Your task to perform on an android device: open chrome privacy settings Image 0: 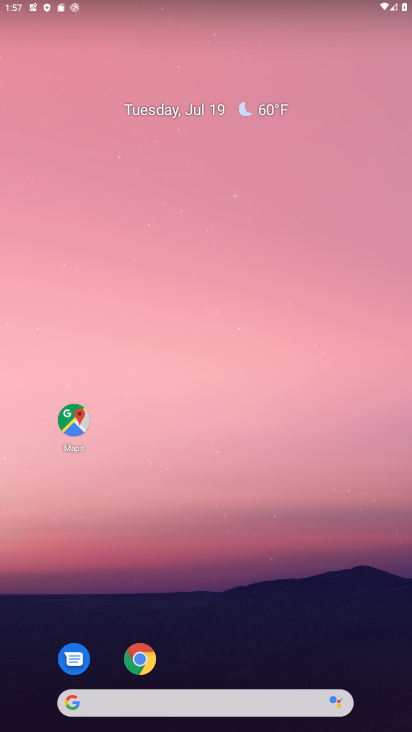
Step 0: press home button
Your task to perform on an android device: open chrome privacy settings Image 1: 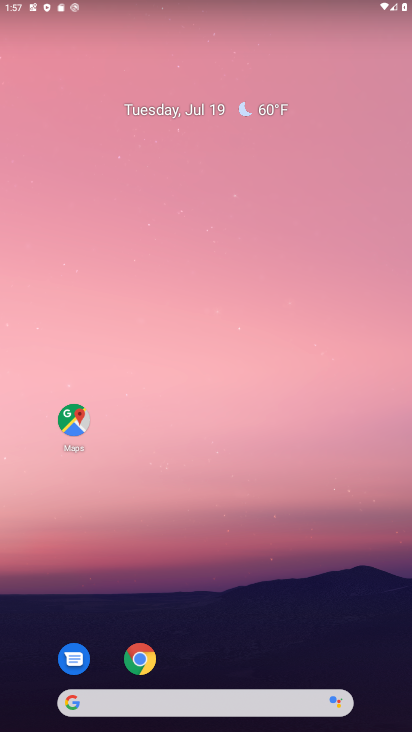
Step 1: click (139, 649)
Your task to perform on an android device: open chrome privacy settings Image 2: 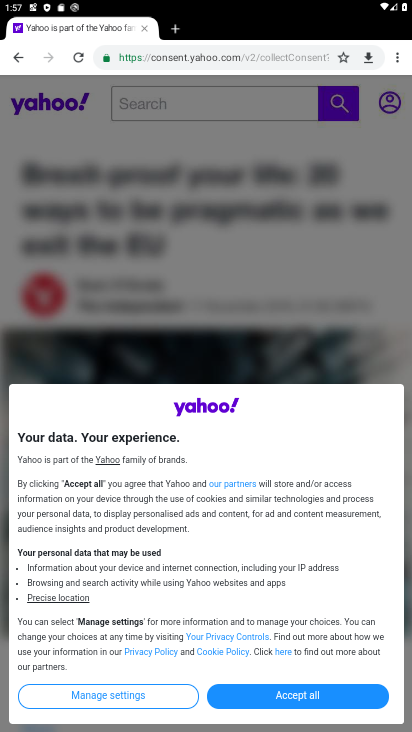
Step 2: click (391, 59)
Your task to perform on an android device: open chrome privacy settings Image 3: 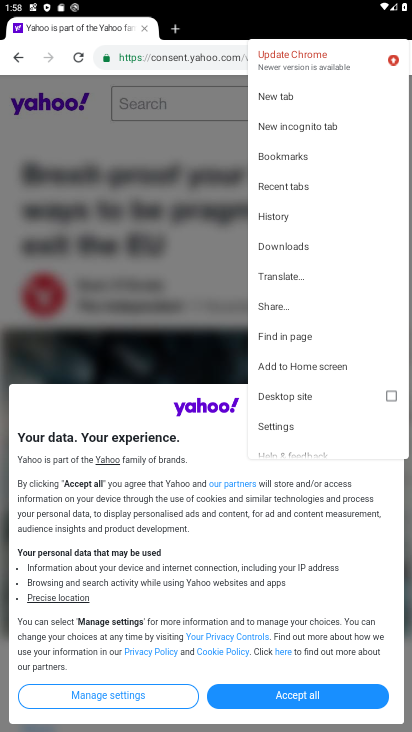
Step 3: click (307, 425)
Your task to perform on an android device: open chrome privacy settings Image 4: 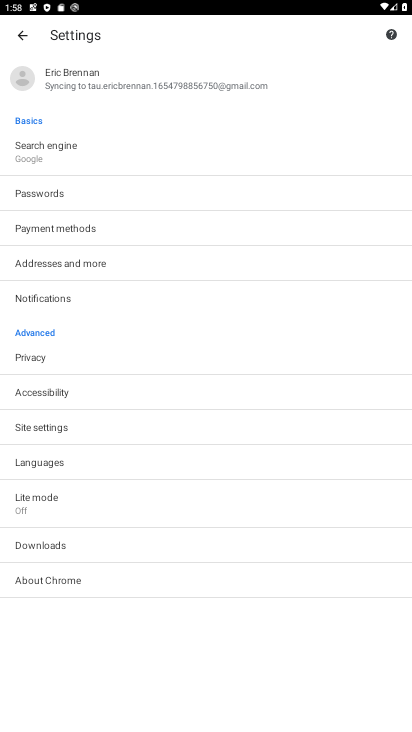
Step 4: click (34, 357)
Your task to perform on an android device: open chrome privacy settings Image 5: 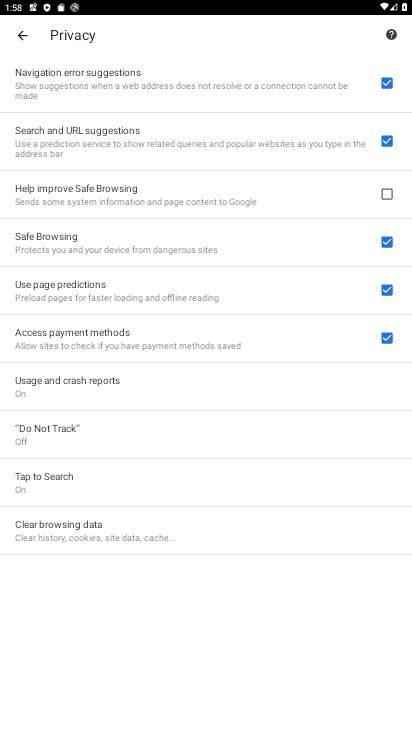
Step 5: task complete